Your task to perform on an android device: Open the map Image 0: 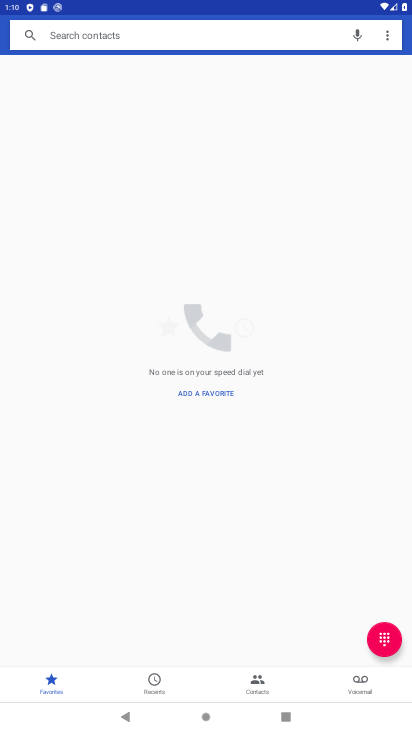
Step 0: press home button
Your task to perform on an android device: Open the map Image 1: 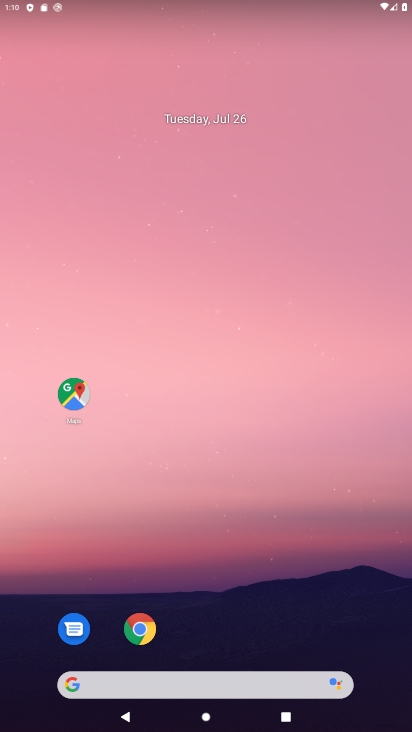
Step 1: click (74, 388)
Your task to perform on an android device: Open the map Image 2: 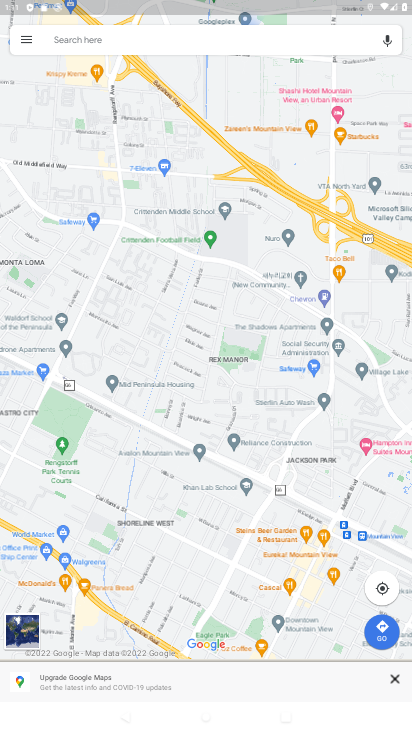
Step 2: task complete